Your task to perform on an android device: Open privacy settings Image 0: 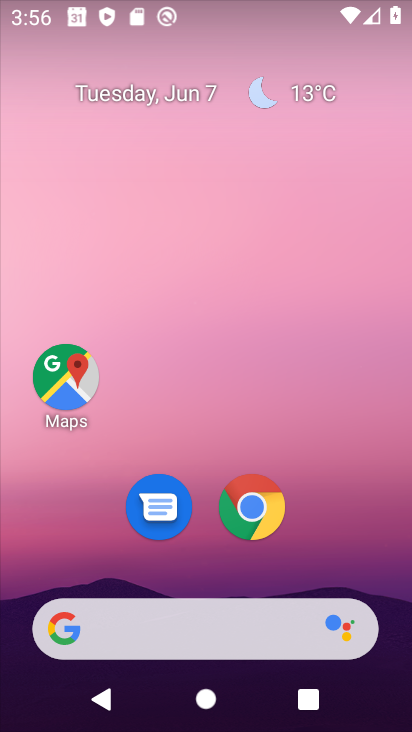
Step 0: drag from (366, 558) to (236, 44)
Your task to perform on an android device: Open privacy settings Image 1: 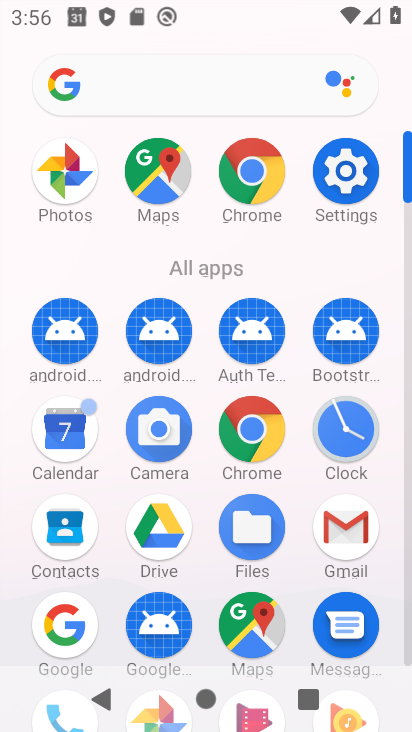
Step 1: drag from (22, 538) to (22, 192)
Your task to perform on an android device: Open privacy settings Image 2: 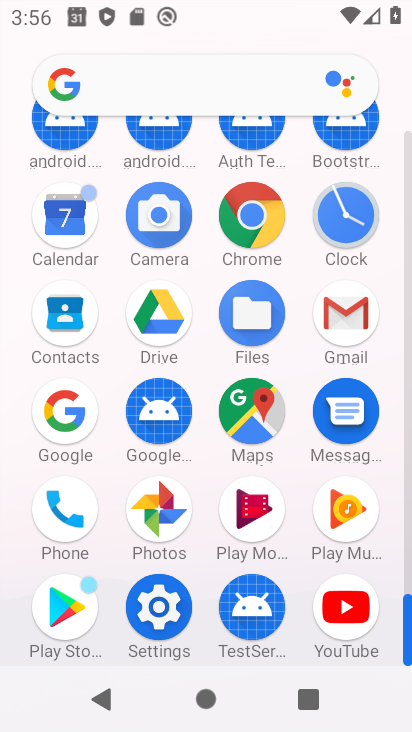
Step 2: click (161, 602)
Your task to perform on an android device: Open privacy settings Image 3: 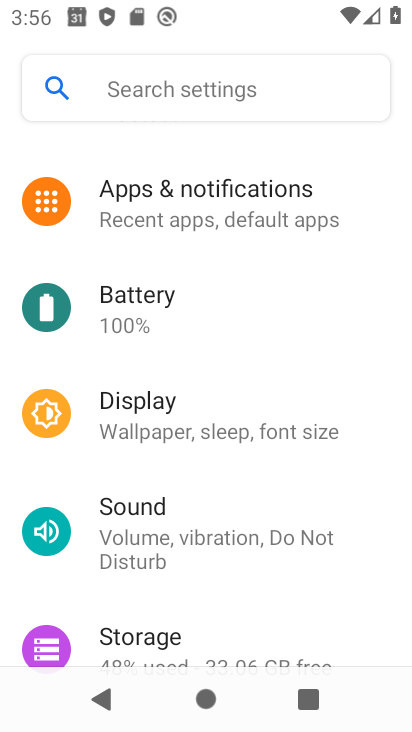
Step 3: drag from (310, 571) to (270, 147)
Your task to perform on an android device: Open privacy settings Image 4: 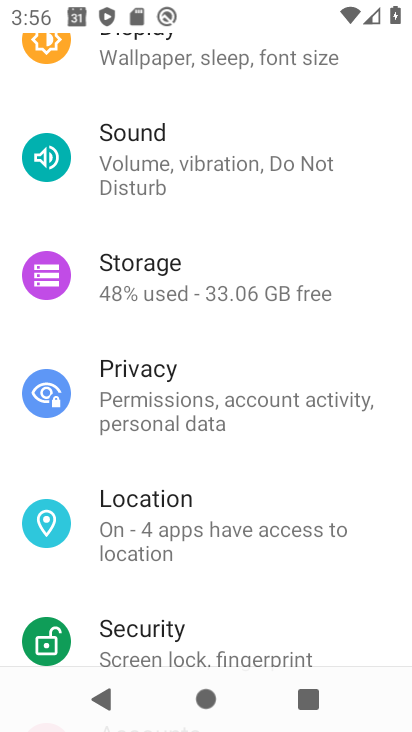
Step 4: click (278, 550)
Your task to perform on an android device: Open privacy settings Image 5: 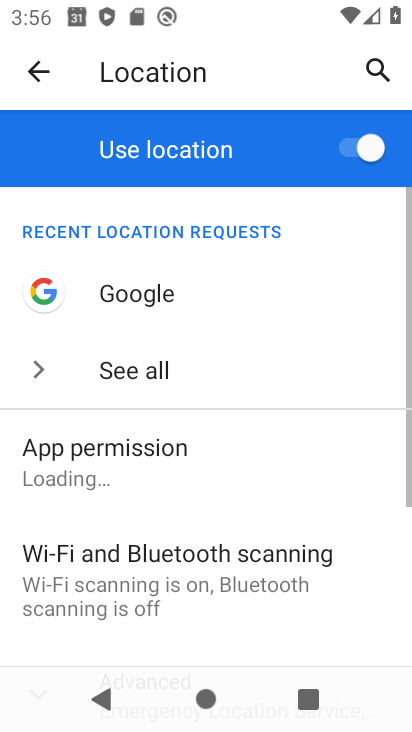
Step 5: click (51, 65)
Your task to perform on an android device: Open privacy settings Image 6: 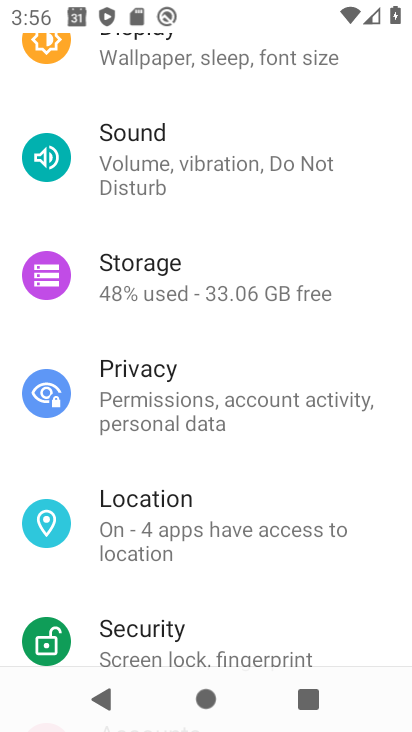
Step 6: click (205, 394)
Your task to perform on an android device: Open privacy settings Image 7: 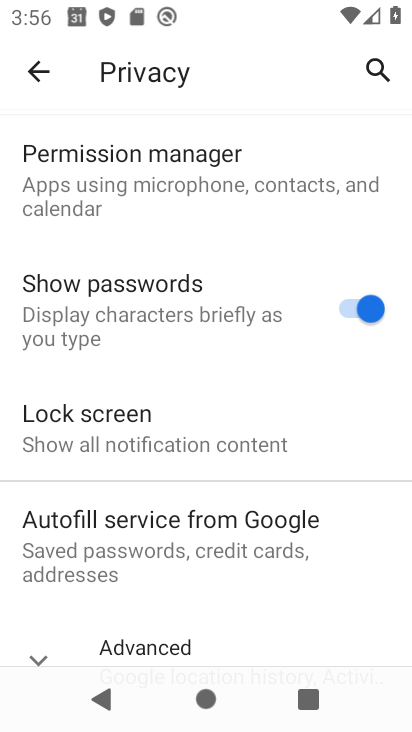
Step 7: click (42, 658)
Your task to perform on an android device: Open privacy settings Image 8: 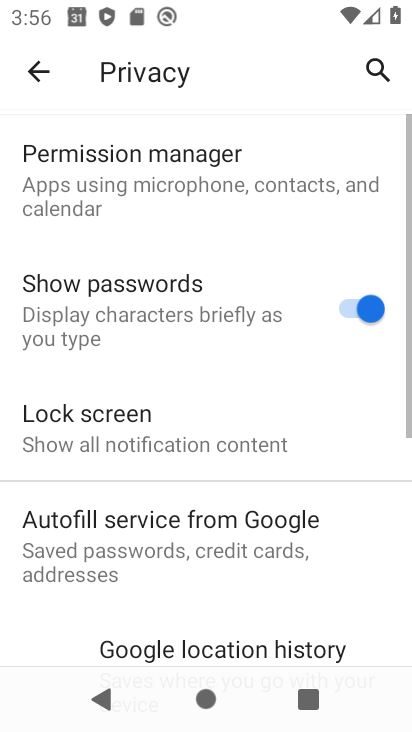
Step 8: task complete